Your task to perform on an android device: Set the phone to "Do not disturb". Image 0: 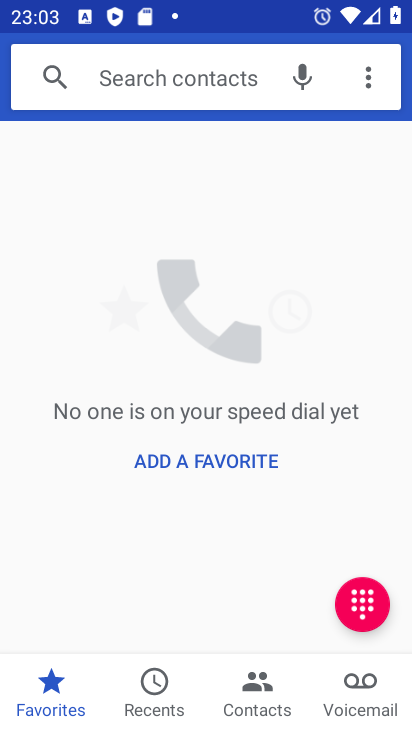
Step 0: press home button
Your task to perform on an android device: Set the phone to "Do not disturb". Image 1: 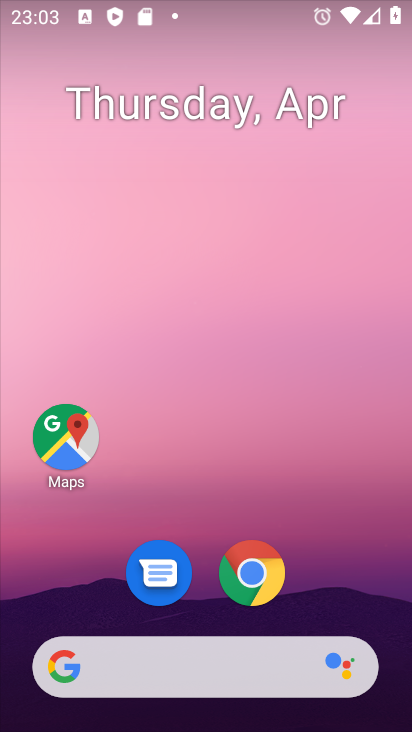
Step 1: drag from (325, 602) to (272, 34)
Your task to perform on an android device: Set the phone to "Do not disturb". Image 2: 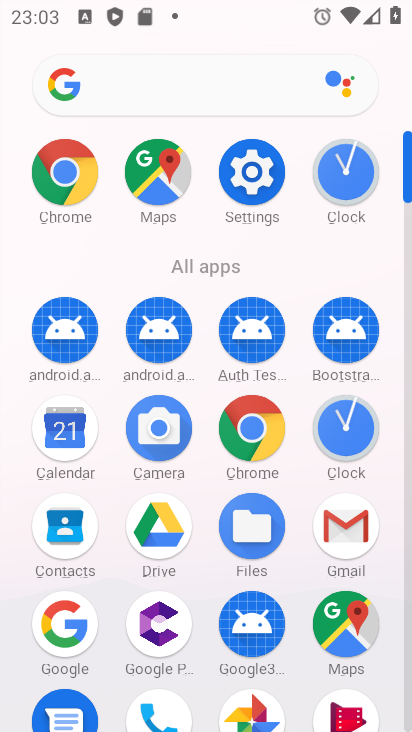
Step 2: click (257, 160)
Your task to perform on an android device: Set the phone to "Do not disturb". Image 3: 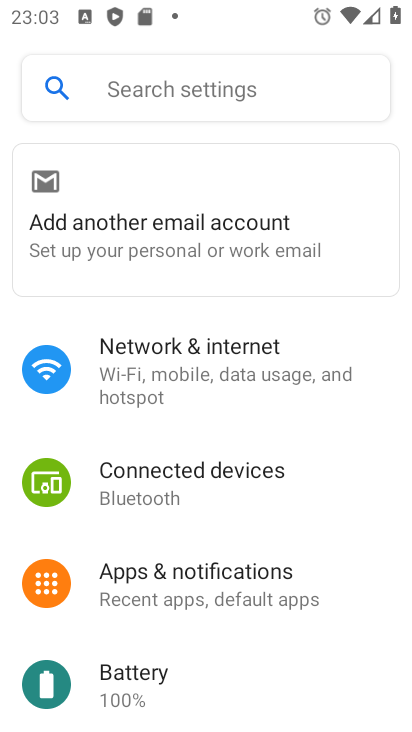
Step 3: drag from (267, 524) to (293, 129)
Your task to perform on an android device: Set the phone to "Do not disturb". Image 4: 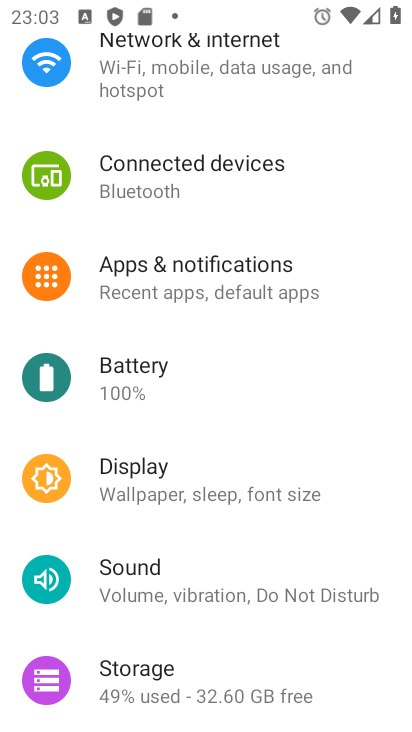
Step 4: click (238, 566)
Your task to perform on an android device: Set the phone to "Do not disturb". Image 5: 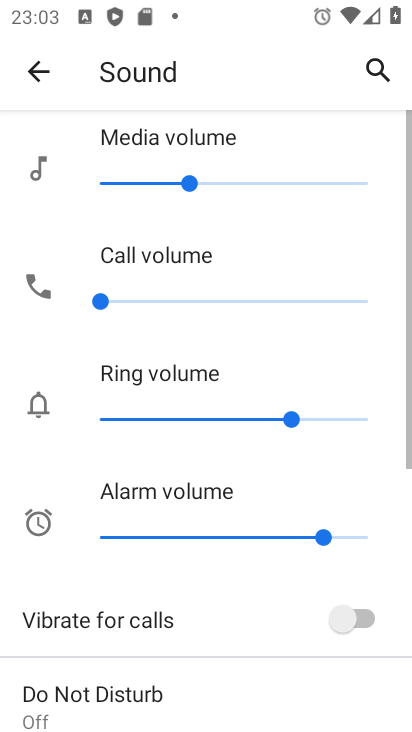
Step 5: drag from (238, 566) to (241, 41)
Your task to perform on an android device: Set the phone to "Do not disturb". Image 6: 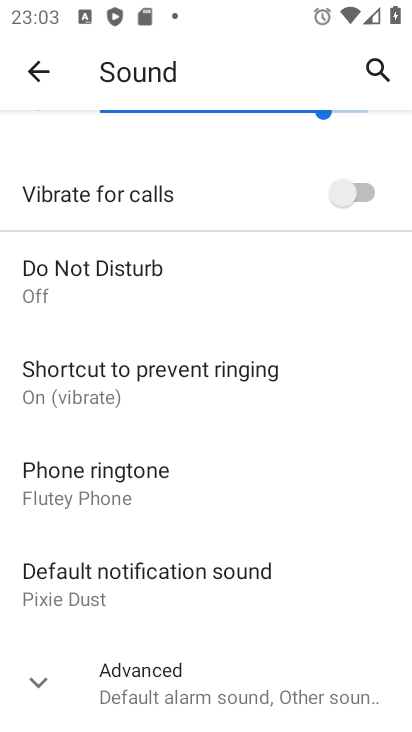
Step 6: drag from (209, 614) to (270, 100)
Your task to perform on an android device: Set the phone to "Do not disturb". Image 7: 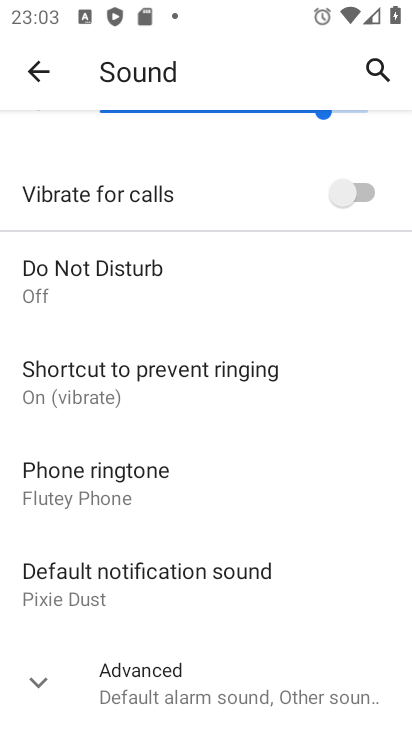
Step 7: click (149, 268)
Your task to perform on an android device: Set the phone to "Do not disturb". Image 8: 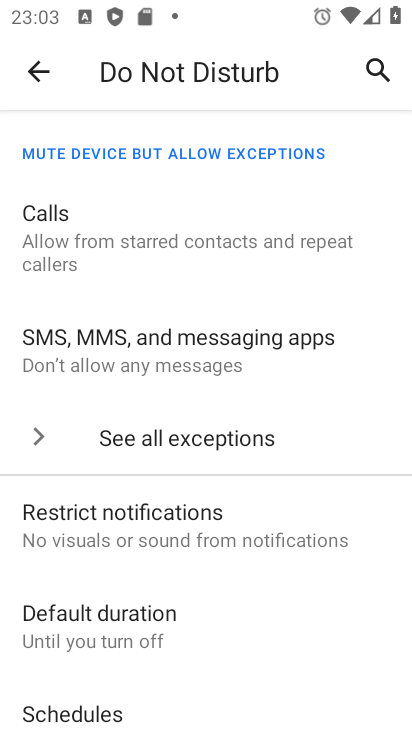
Step 8: drag from (211, 630) to (302, 188)
Your task to perform on an android device: Set the phone to "Do not disturb". Image 9: 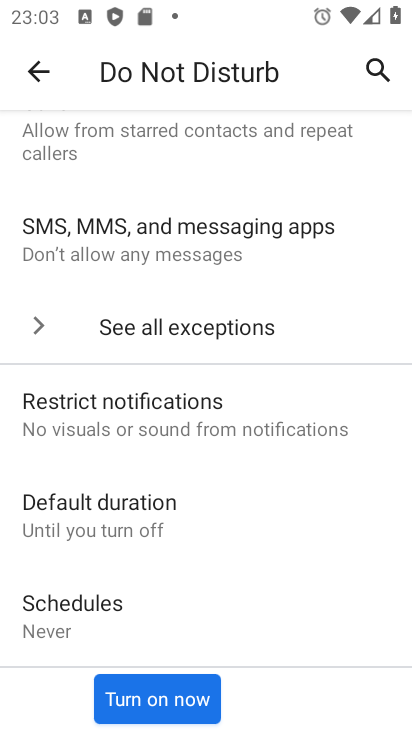
Step 9: click (160, 704)
Your task to perform on an android device: Set the phone to "Do not disturb". Image 10: 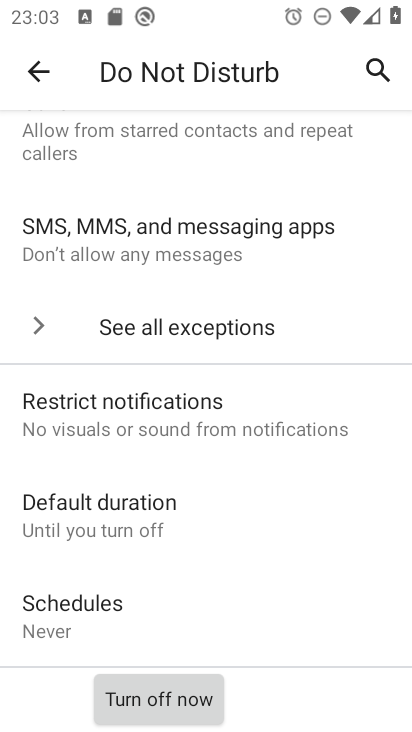
Step 10: task complete